Your task to perform on an android device: set default search engine in the chrome app Image 0: 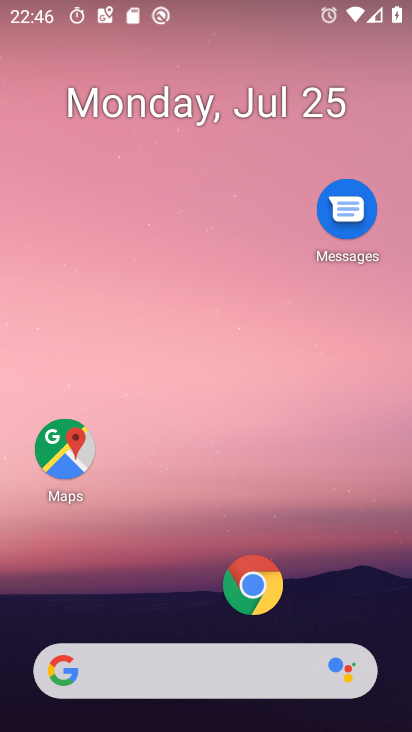
Step 0: press home button
Your task to perform on an android device: set default search engine in the chrome app Image 1: 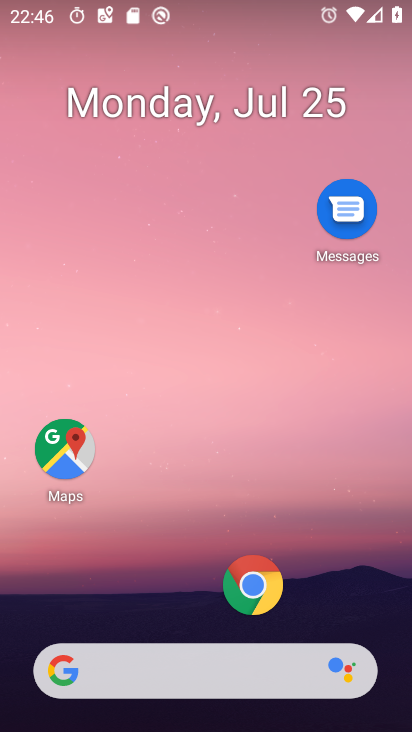
Step 1: click (248, 588)
Your task to perform on an android device: set default search engine in the chrome app Image 2: 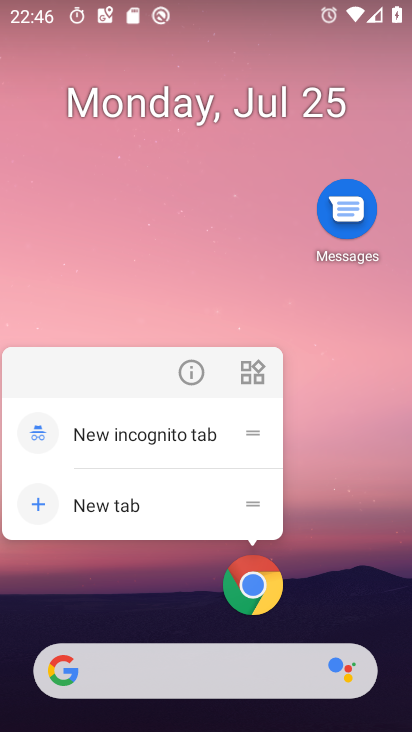
Step 2: click (255, 580)
Your task to perform on an android device: set default search engine in the chrome app Image 3: 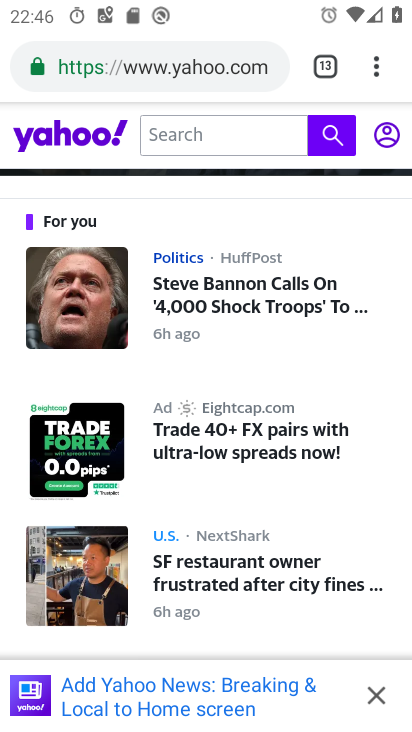
Step 3: drag from (379, 67) to (215, 583)
Your task to perform on an android device: set default search engine in the chrome app Image 4: 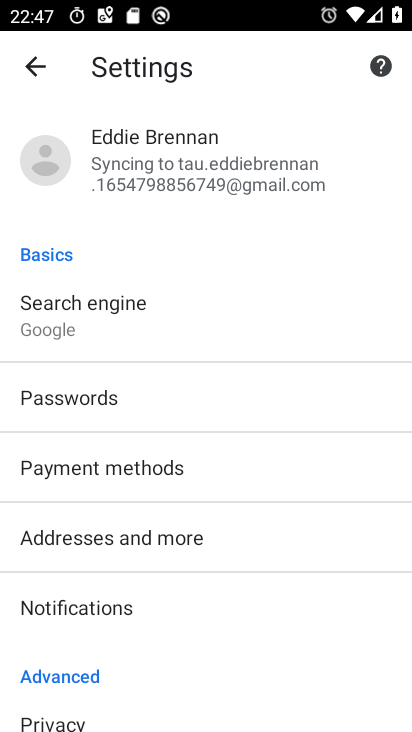
Step 4: drag from (137, 638) to (307, 158)
Your task to perform on an android device: set default search engine in the chrome app Image 5: 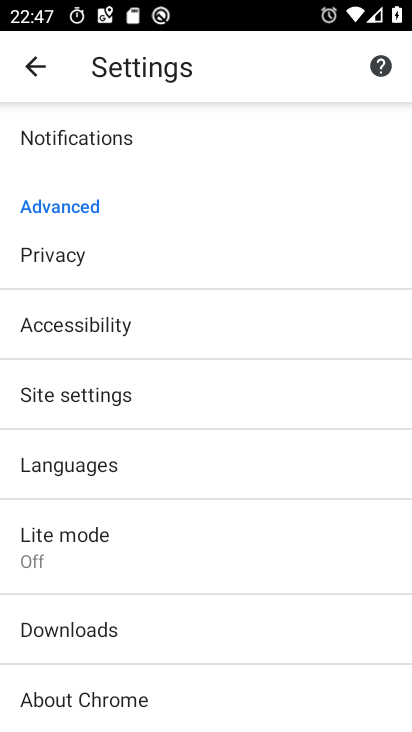
Step 5: drag from (174, 217) to (211, 652)
Your task to perform on an android device: set default search engine in the chrome app Image 6: 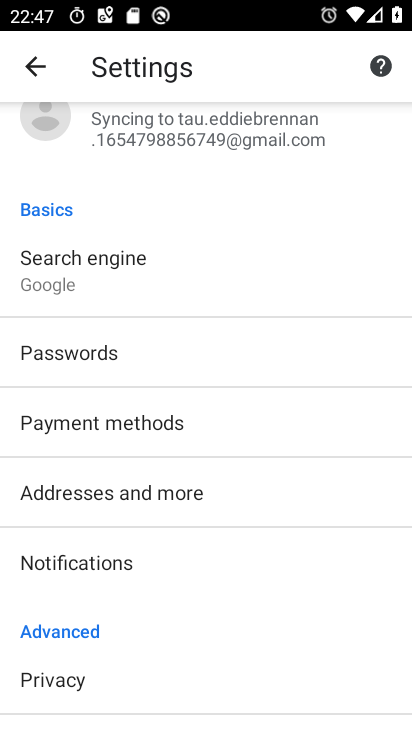
Step 6: click (81, 268)
Your task to perform on an android device: set default search engine in the chrome app Image 7: 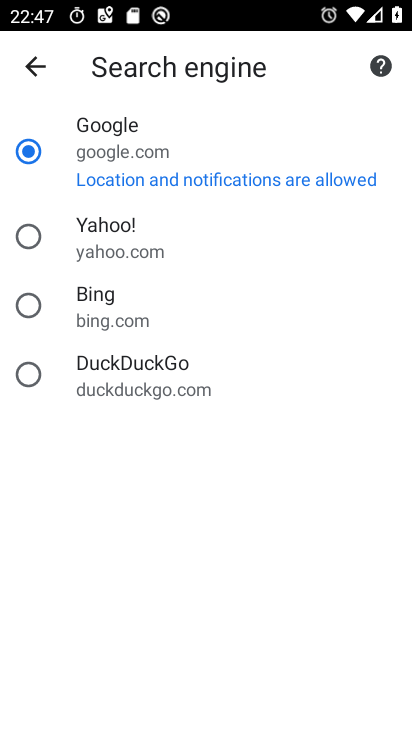
Step 7: click (23, 234)
Your task to perform on an android device: set default search engine in the chrome app Image 8: 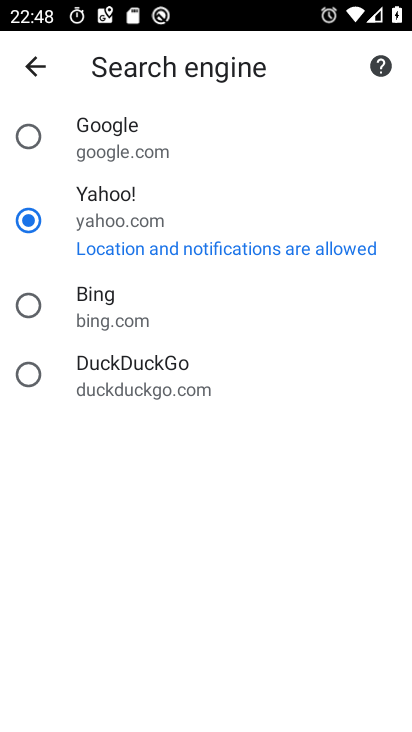
Step 8: task complete